Your task to perform on an android device: open a bookmark in the chrome app Image 0: 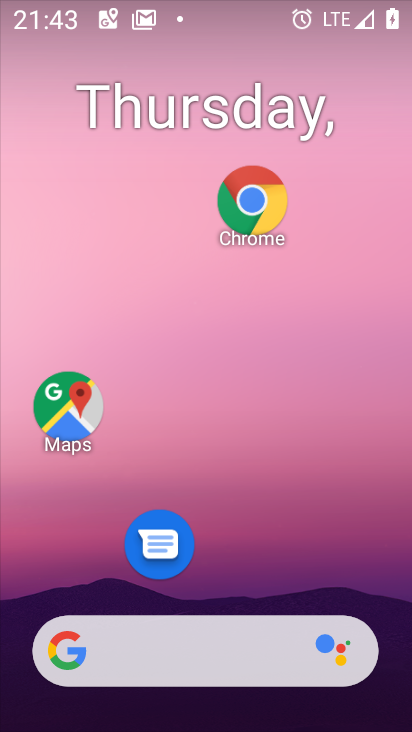
Step 0: click (262, 196)
Your task to perform on an android device: open a bookmark in the chrome app Image 1: 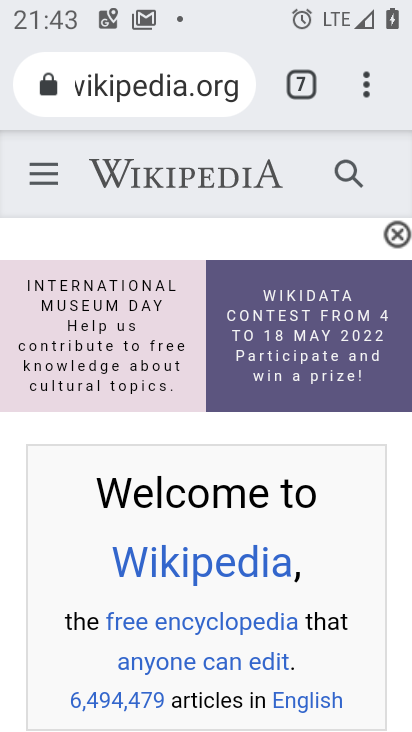
Step 1: click (356, 73)
Your task to perform on an android device: open a bookmark in the chrome app Image 2: 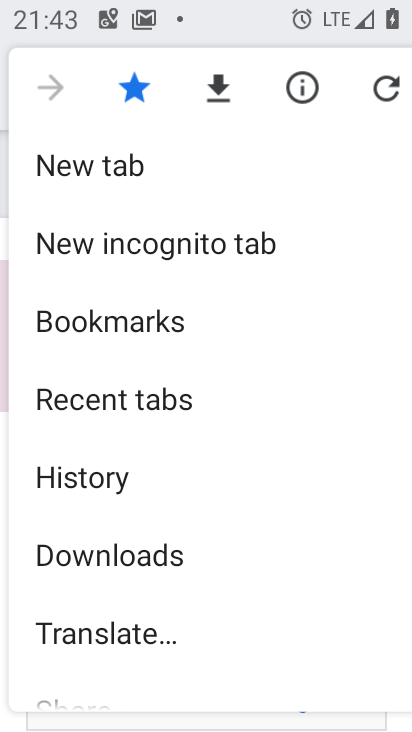
Step 2: click (151, 319)
Your task to perform on an android device: open a bookmark in the chrome app Image 3: 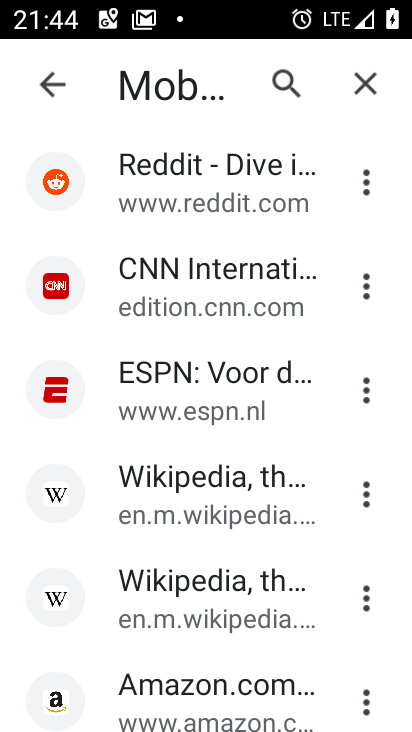
Step 3: click (187, 692)
Your task to perform on an android device: open a bookmark in the chrome app Image 4: 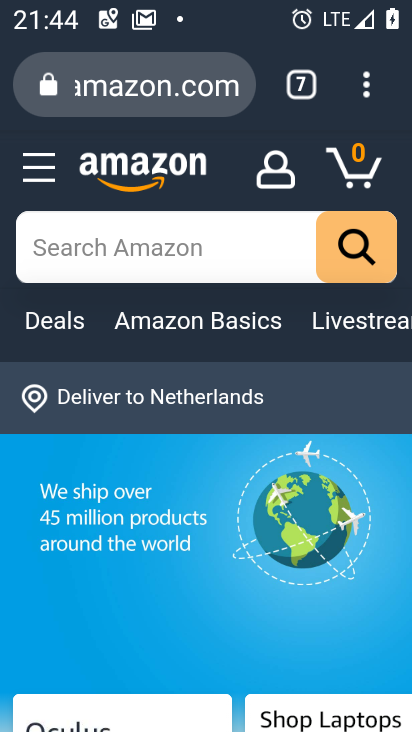
Step 4: task complete